Your task to perform on an android device: toggle improve location accuracy Image 0: 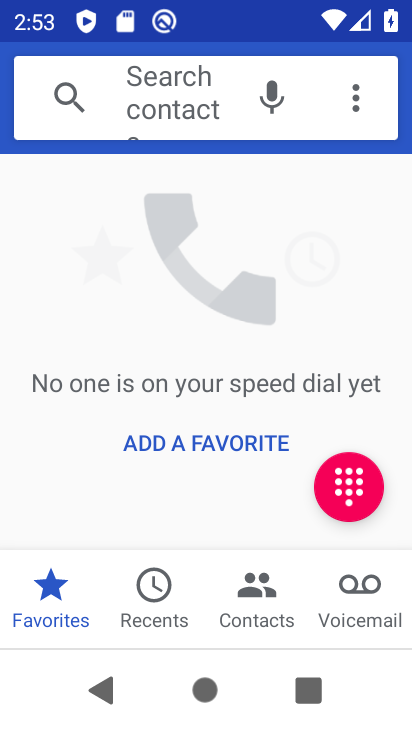
Step 0: press home button
Your task to perform on an android device: toggle improve location accuracy Image 1: 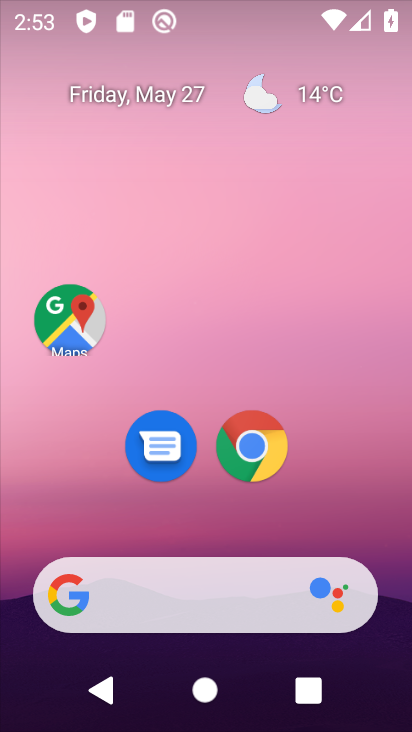
Step 1: click (395, 487)
Your task to perform on an android device: toggle improve location accuracy Image 2: 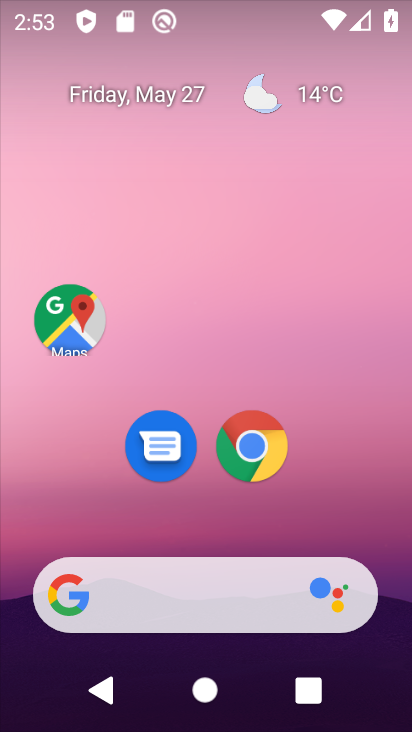
Step 2: drag from (214, 574) to (313, 128)
Your task to perform on an android device: toggle improve location accuracy Image 3: 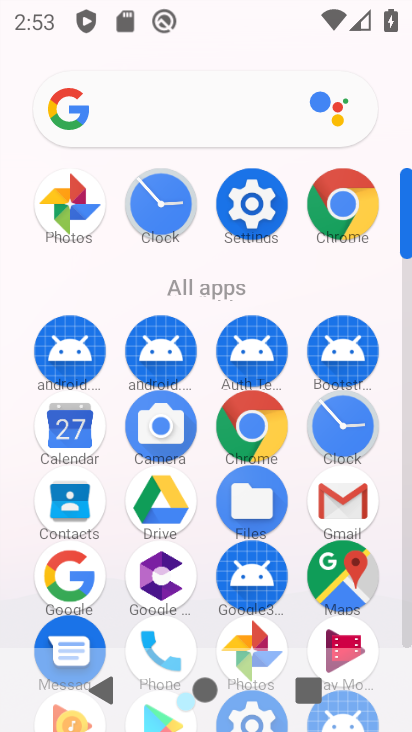
Step 3: click (244, 201)
Your task to perform on an android device: toggle improve location accuracy Image 4: 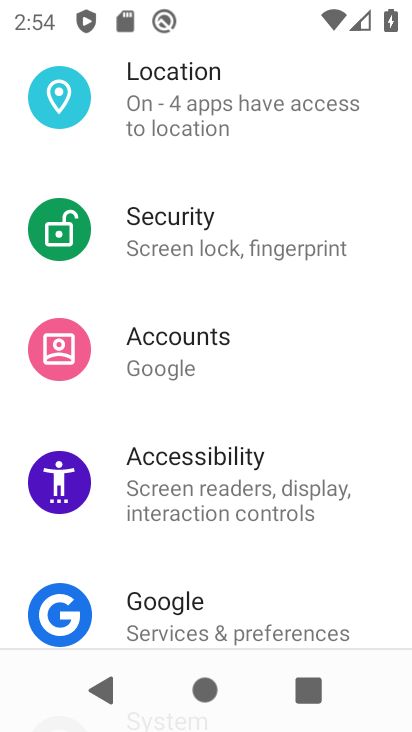
Step 4: click (279, 567)
Your task to perform on an android device: toggle improve location accuracy Image 5: 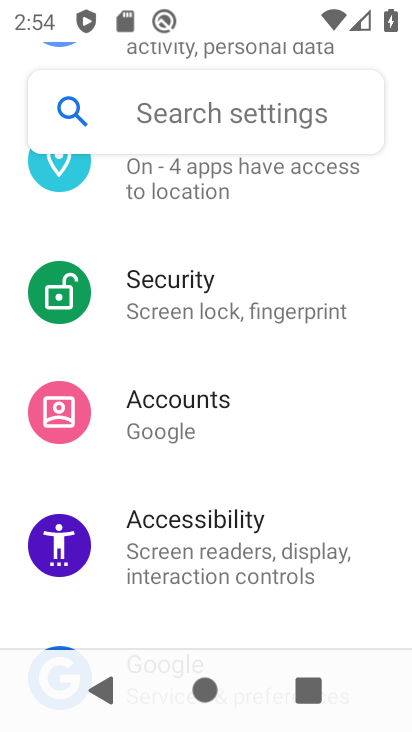
Step 5: drag from (267, 272) to (277, 498)
Your task to perform on an android device: toggle improve location accuracy Image 6: 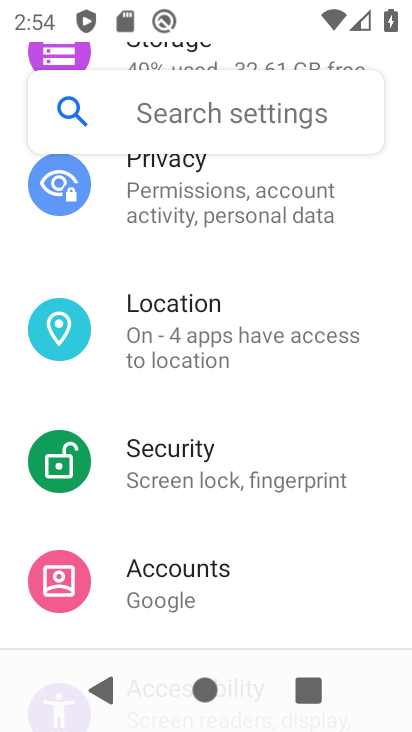
Step 6: click (190, 332)
Your task to perform on an android device: toggle improve location accuracy Image 7: 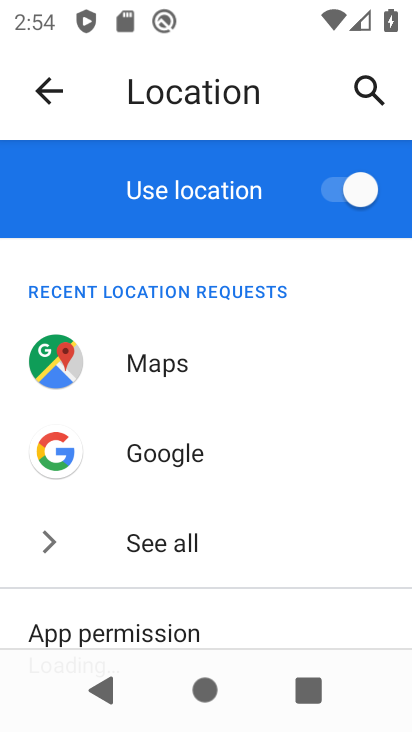
Step 7: drag from (245, 541) to (365, 37)
Your task to perform on an android device: toggle improve location accuracy Image 8: 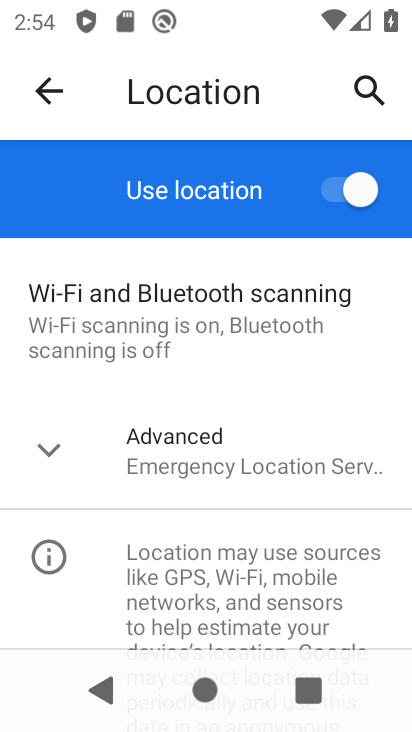
Step 8: click (169, 445)
Your task to perform on an android device: toggle improve location accuracy Image 9: 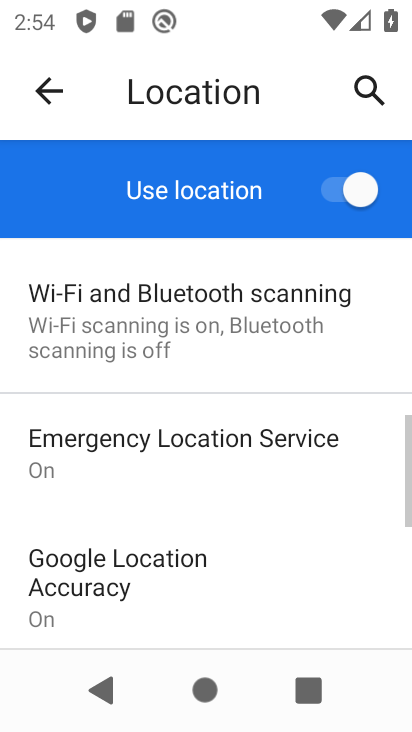
Step 9: drag from (237, 497) to (324, 203)
Your task to perform on an android device: toggle improve location accuracy Image 10: 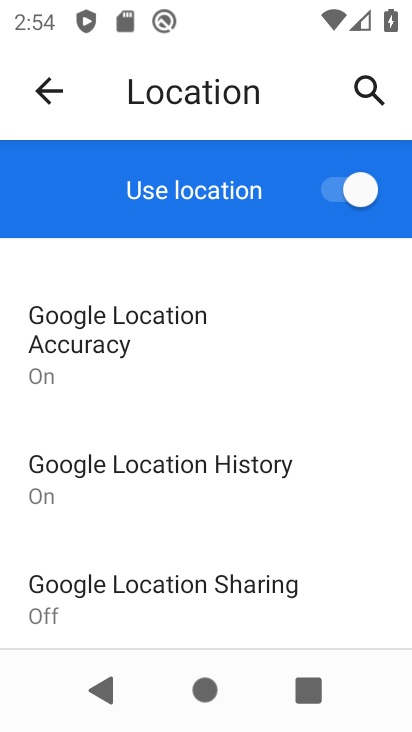
Step 10: click (141, 318)
Your task to perform on an android device: toggle improve location accuracy Image 11: 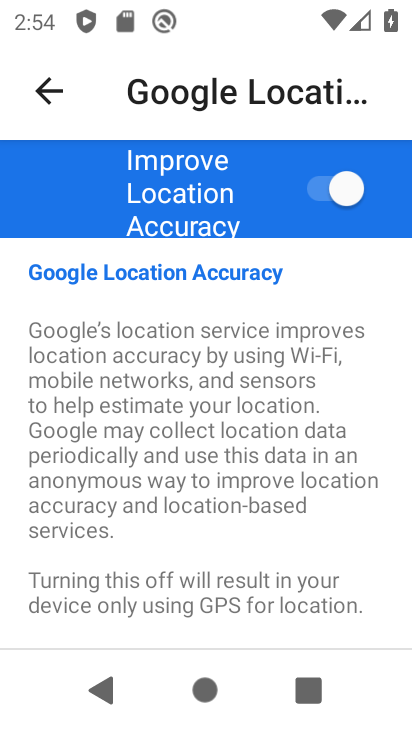
Step 11: click (327, 189)
Your task to perform on an android device: toggle improve location accuracy Image 12: 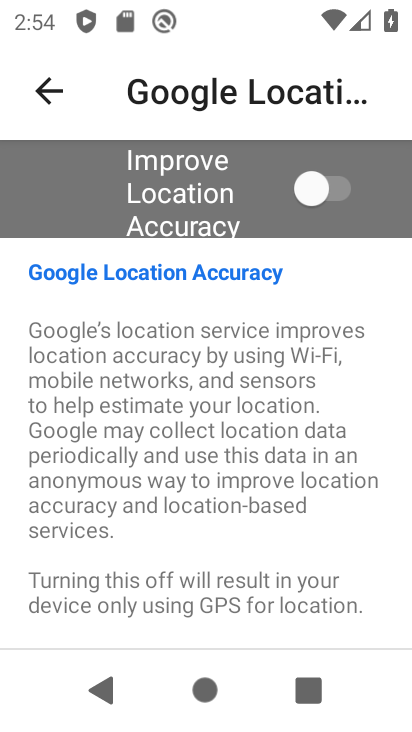
Step 12: task complete